Your task to perform on an android device: Open settings Image 0: 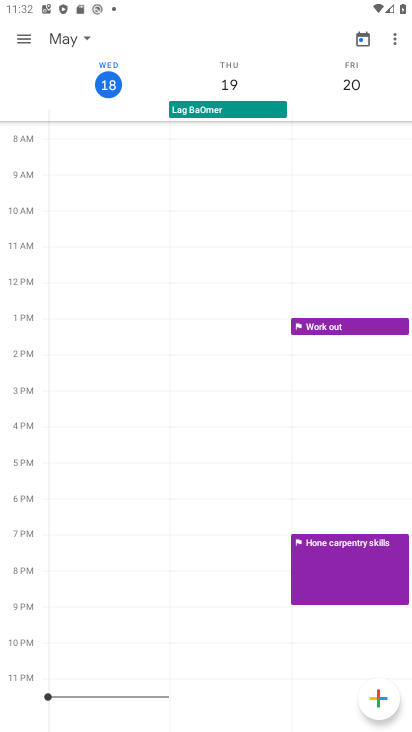
Step 0: press home button
Your task to perform on an android device: Open settings Image 1: 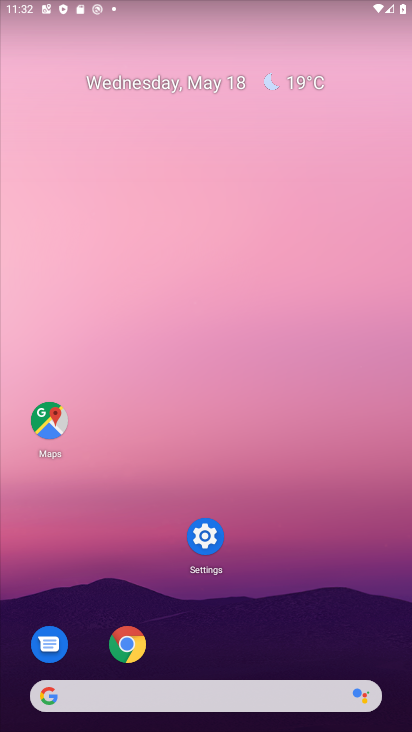
Step 1: drag from (340, 568) to (316, 285)
Your task to perform on an android device: Open settings Image 2: 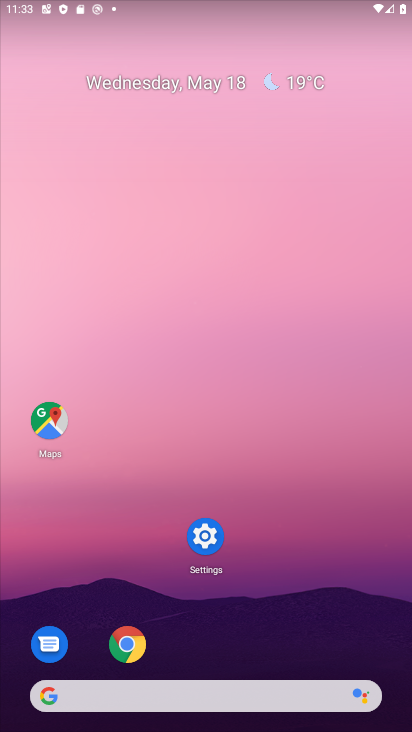
Step 2: click (314, 277)
Your task to perform on an android device: Open settings Image 3: 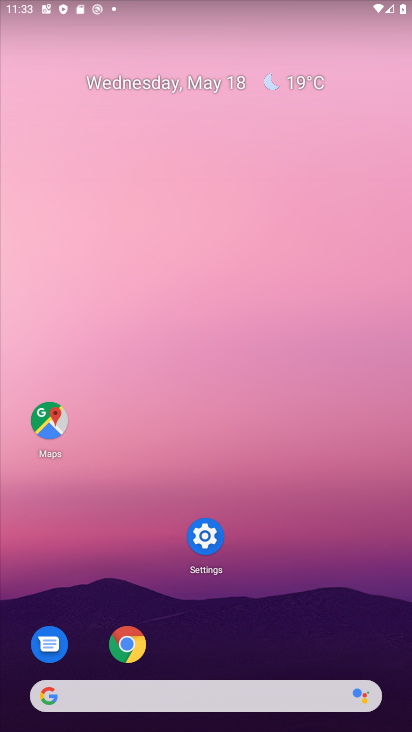
Step 3: click (209, 528)
Your task to perform on an android device: Open settings Image 4: 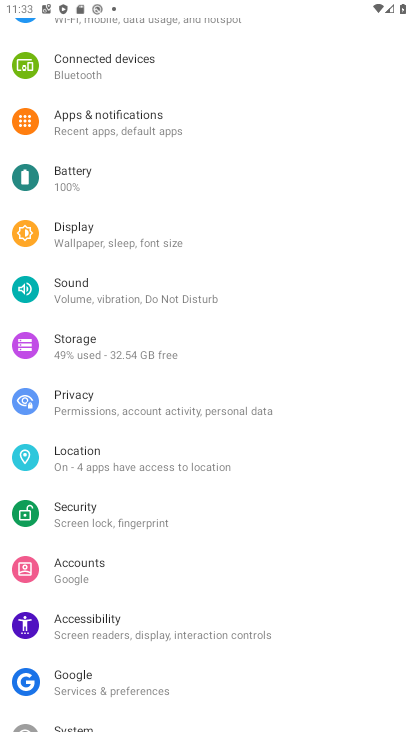
Step 4: task complete